Your task to perform on an android device: turn on sleep mode Image 0: 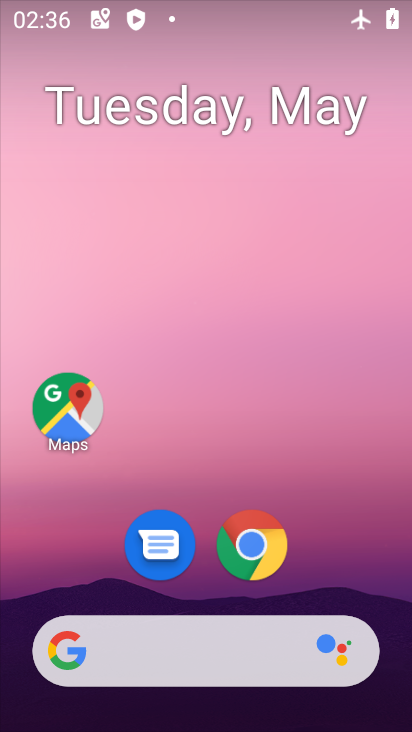
Step 0: drag from (389, 613) to (317, 24)
Your task to perform on an android device: turn on sleep mode Image 1: 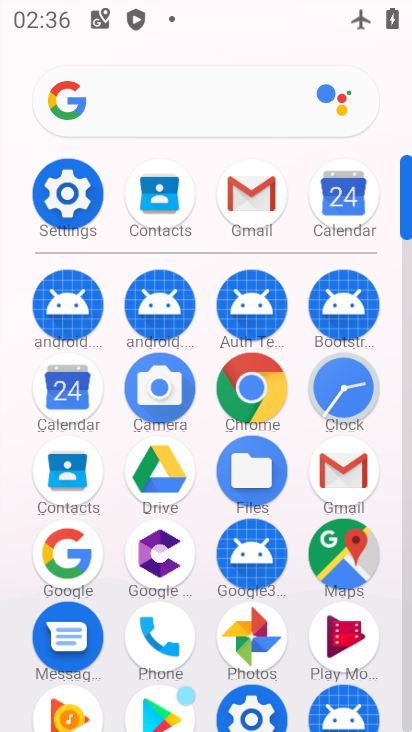
Step 1: click (407, 720)
Your task to perform on an android device: turn on sleep mode Image 2: 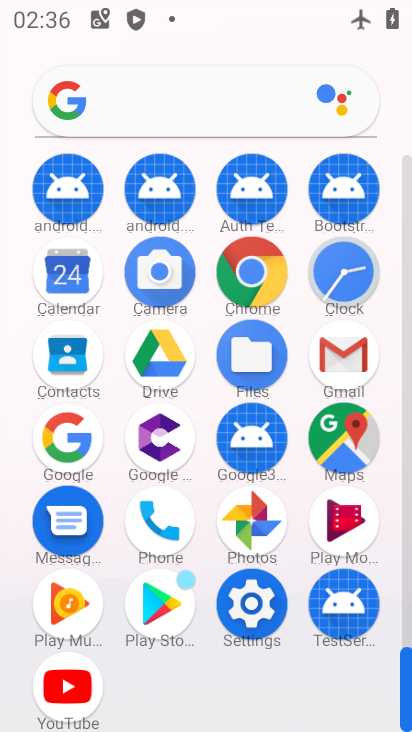
Step 2: click (247, 604)
Your task to perform on an android device: turn on sleep mode Image 3: 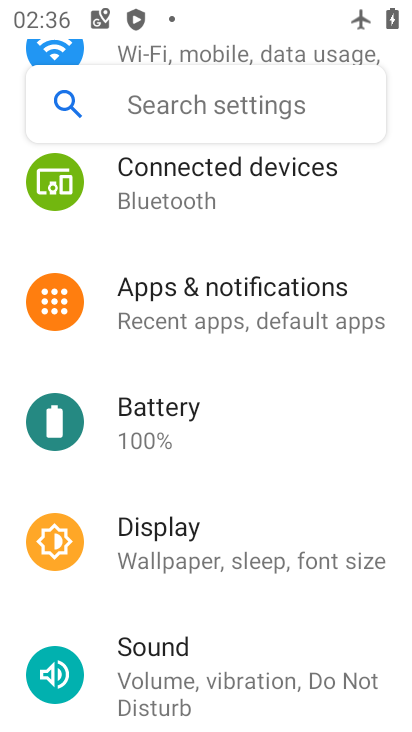
Step 3: drag from (283, 642) to (261, 269)
Your task to perform on an android device: turn on sleep mode Image 4: 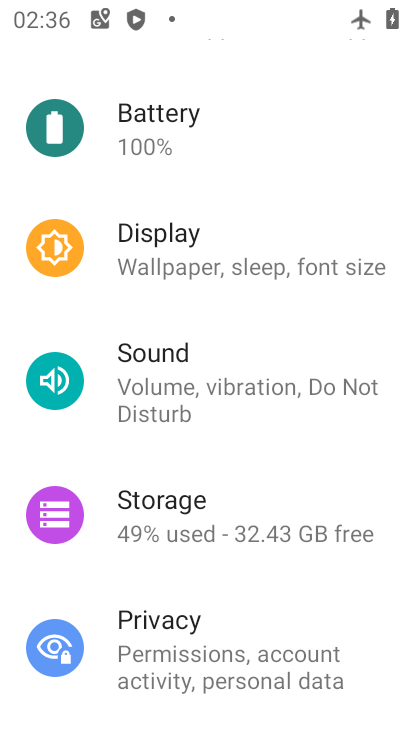
Step 4: click (142, 242)
Your task to perform on an android device: turn on sleep mode Image 5: 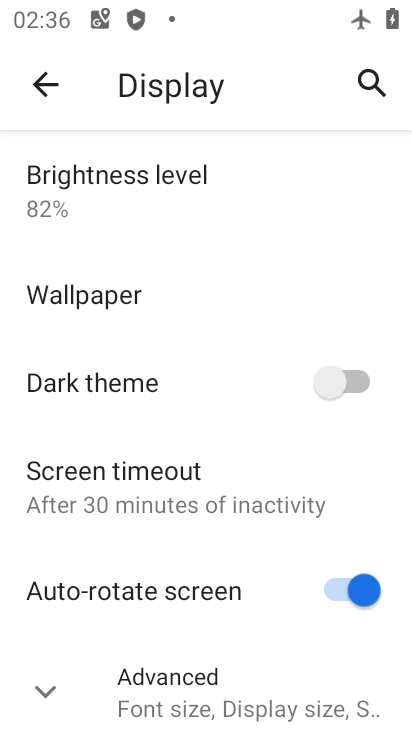
Step 5: drag from (185, 662) to (217, 316)
Your task to perform on an android device: turn on sleep mode Image 6: 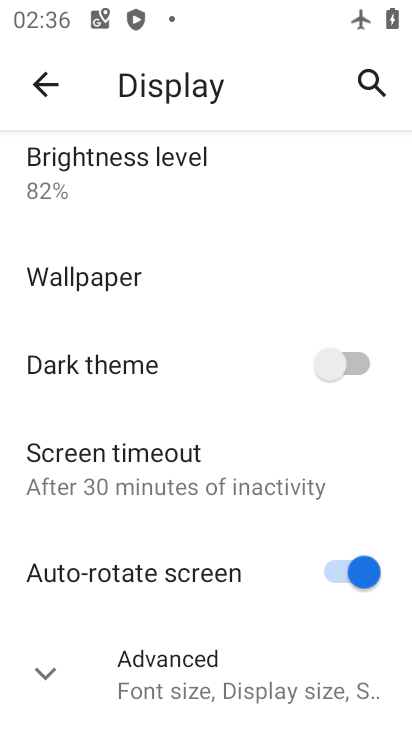
Step 6: click (47, 671)
Your task to perform on an android device: turn on sleep mode Image 7: 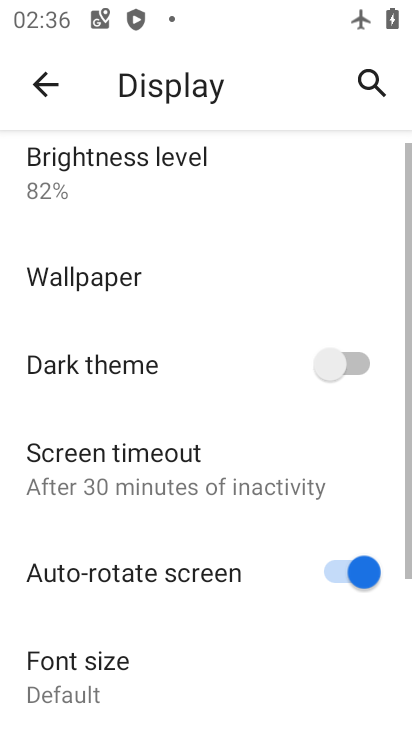
Step 7: task complete